Your task to perform on an android device: See recent photos Image 0: 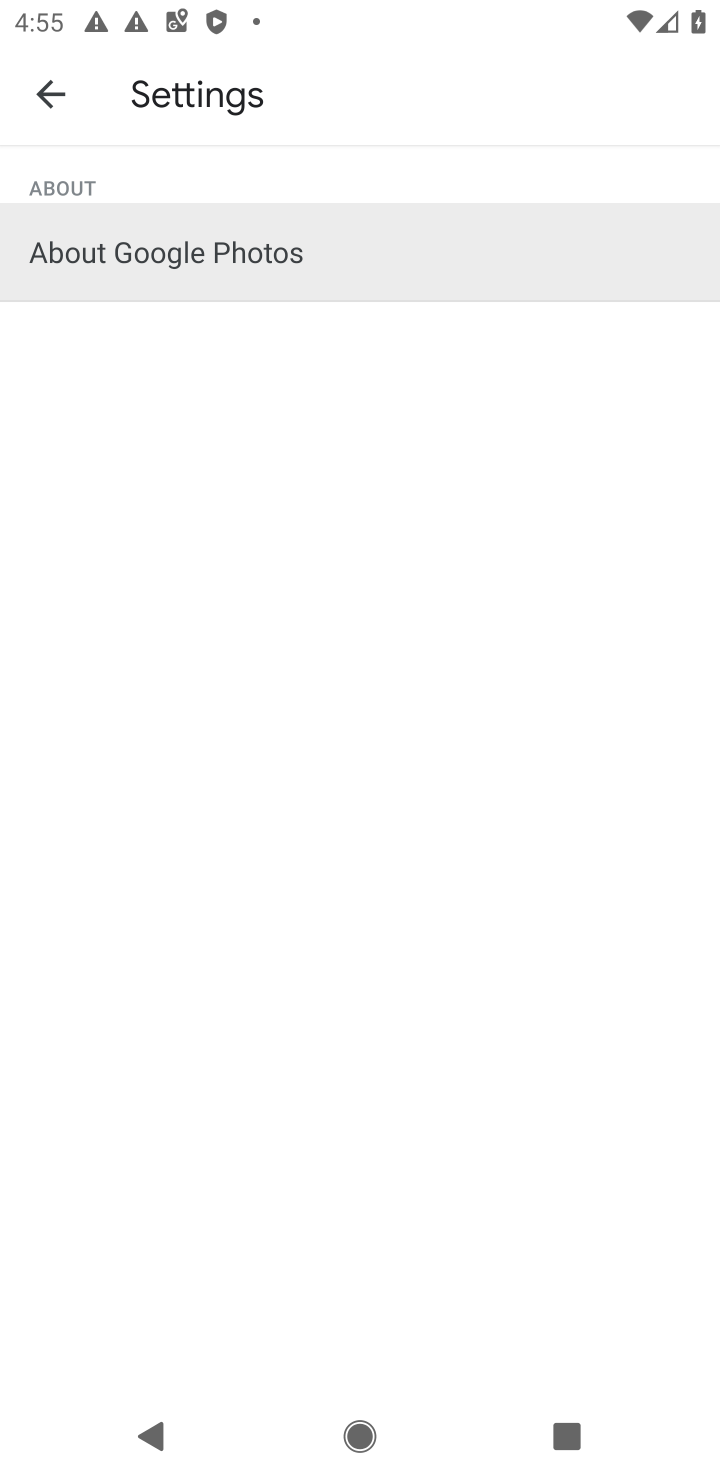
Step 0: press home button
Your task to perform on an android device: See recent photos Image 1: 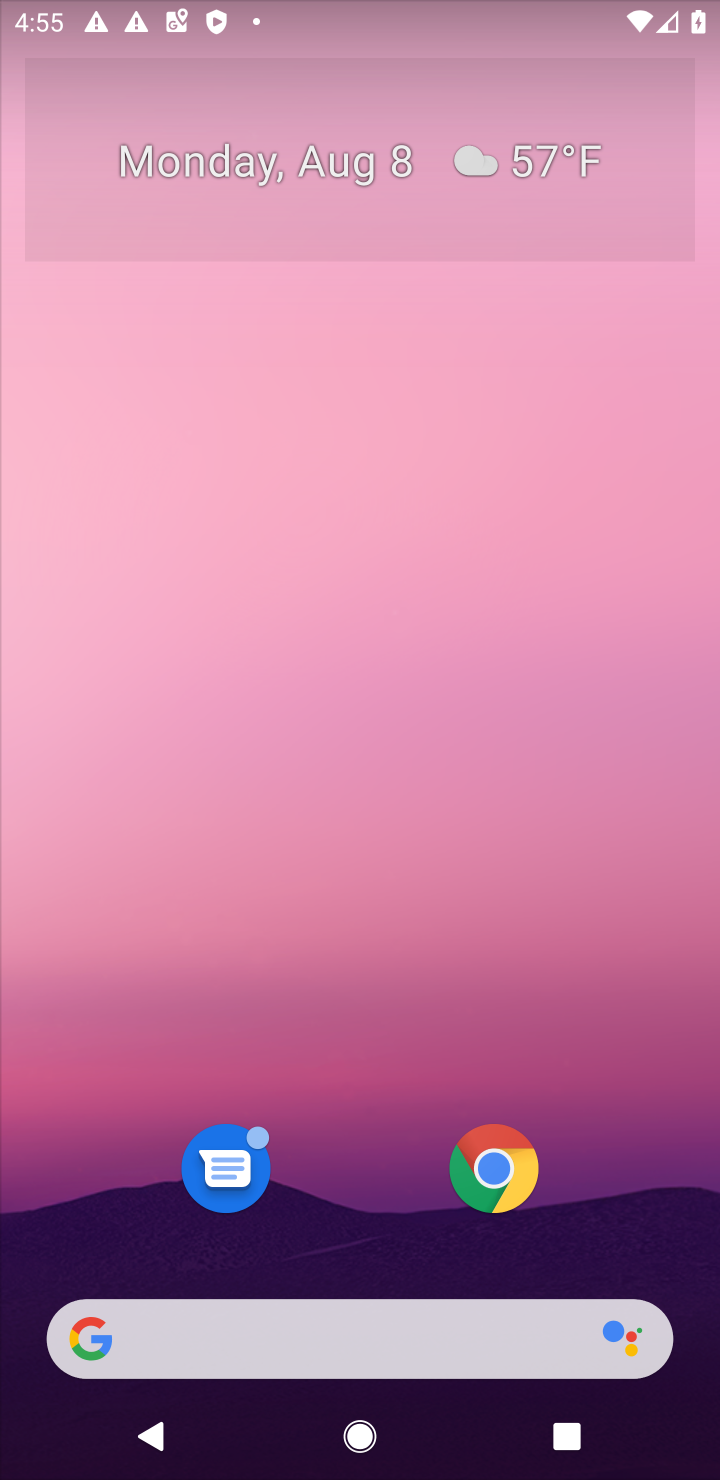
Step 1: drag from (344, 794) to (300, 149)
Your task to perform on an android device: See recent photos Image 2: 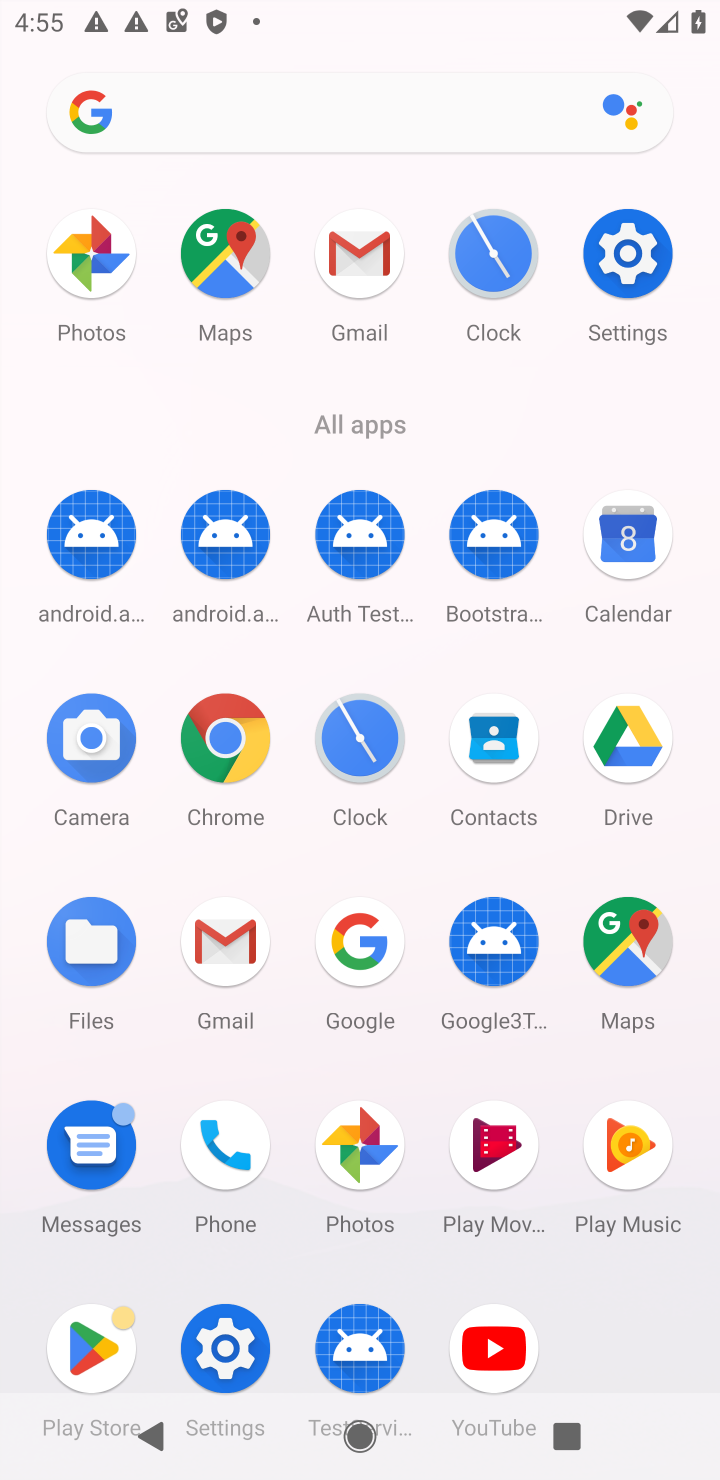
Step 2: click (369, 1180)
Your task to perform on an android device: See recent photos Image 3: 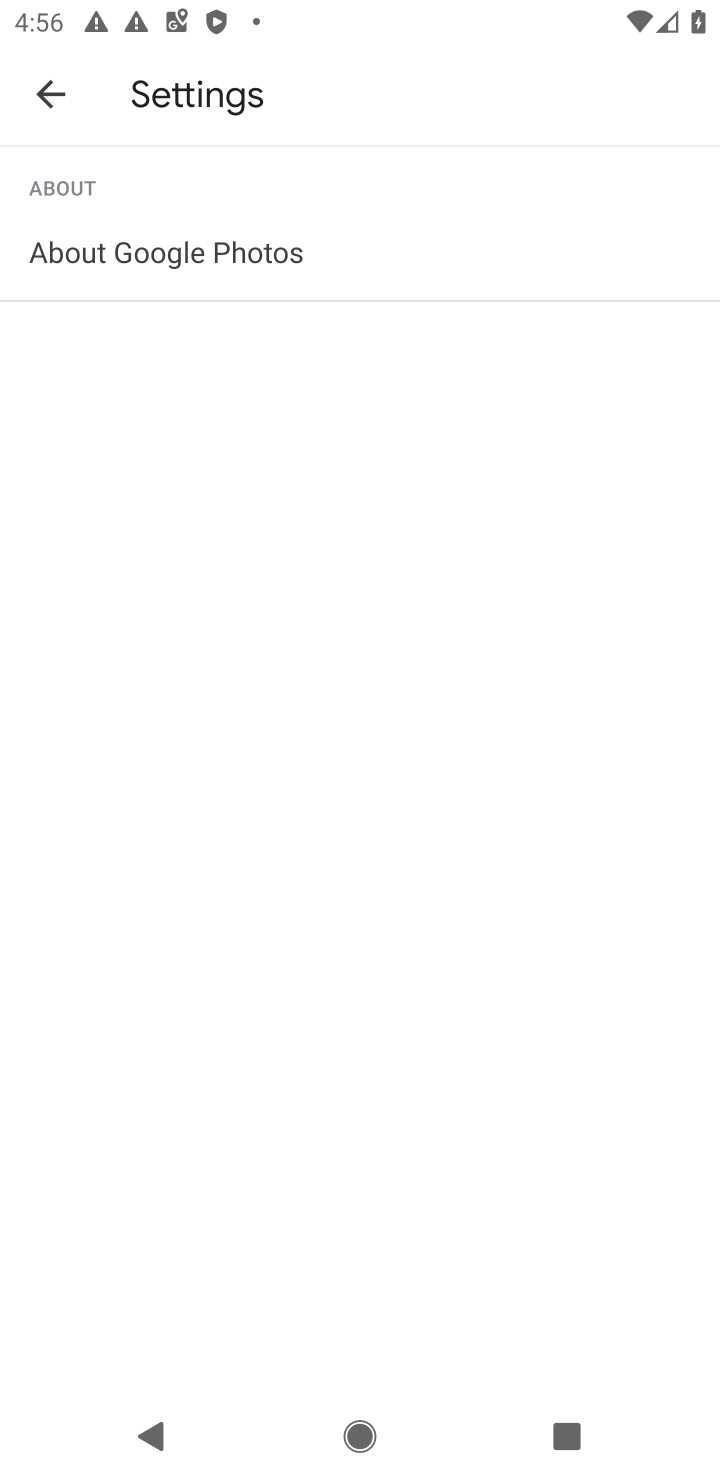
Step 3: click (51, 92)
Your task to perform on an android device: See recent photos Image 4: 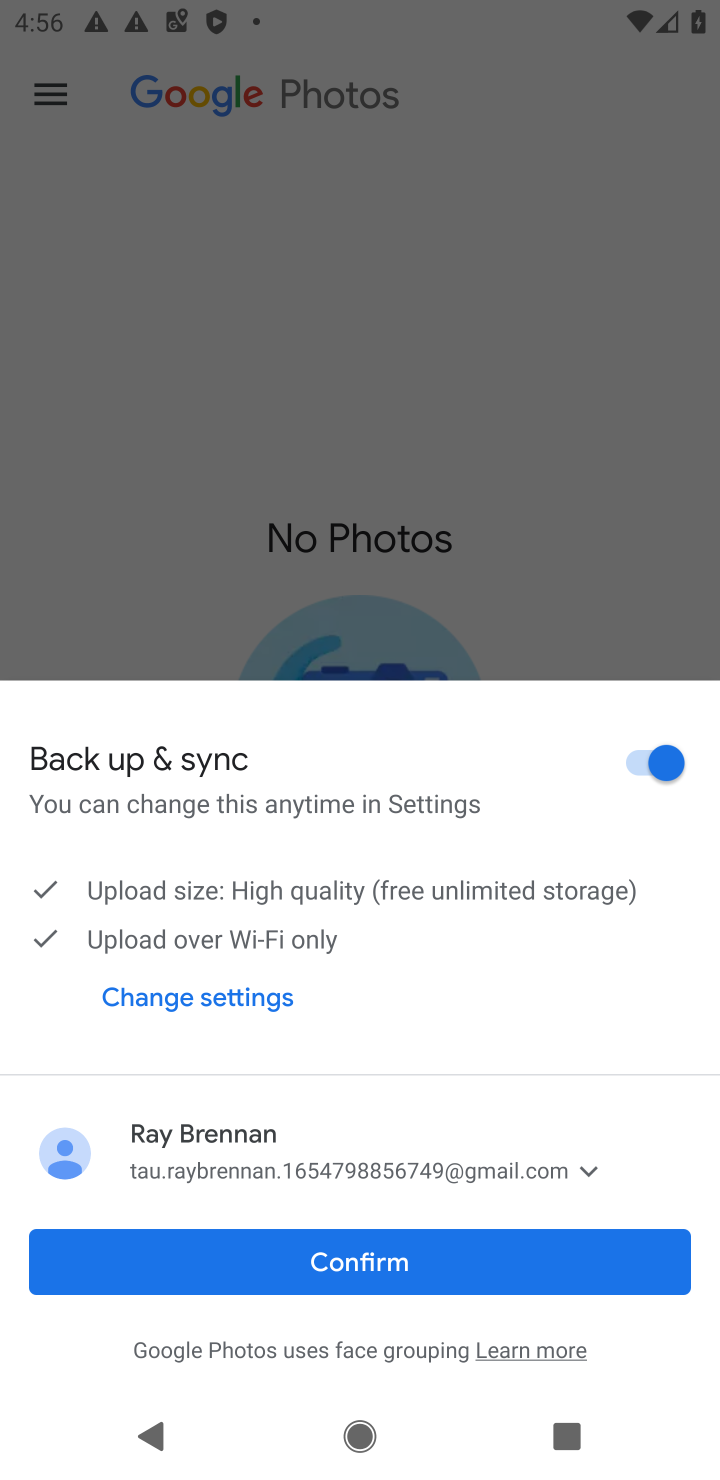
Step 4: click (298, 1300)
Your task to perform on an android device: See recent photos Image 5: 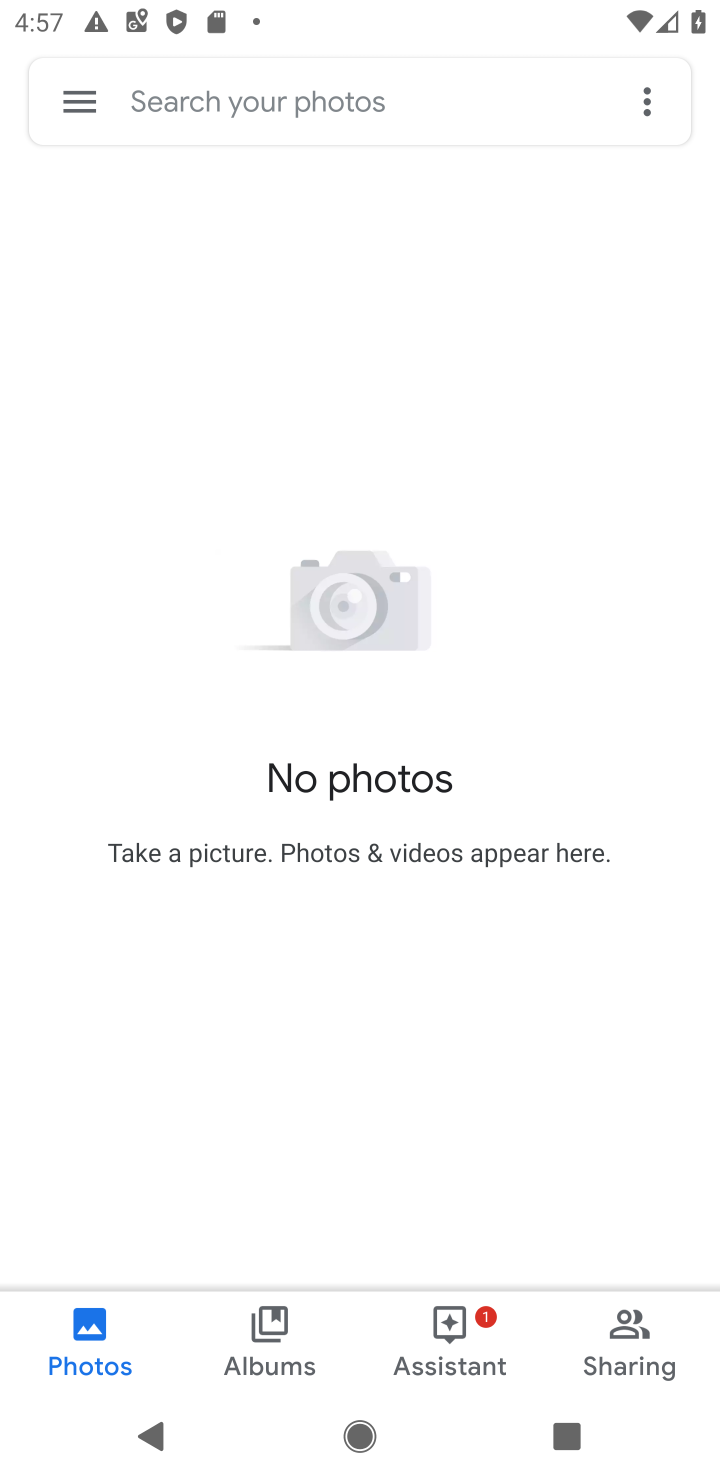
Step 5: click (249, 1330)
Your task to perform on an android device: See recent photos Image 6: 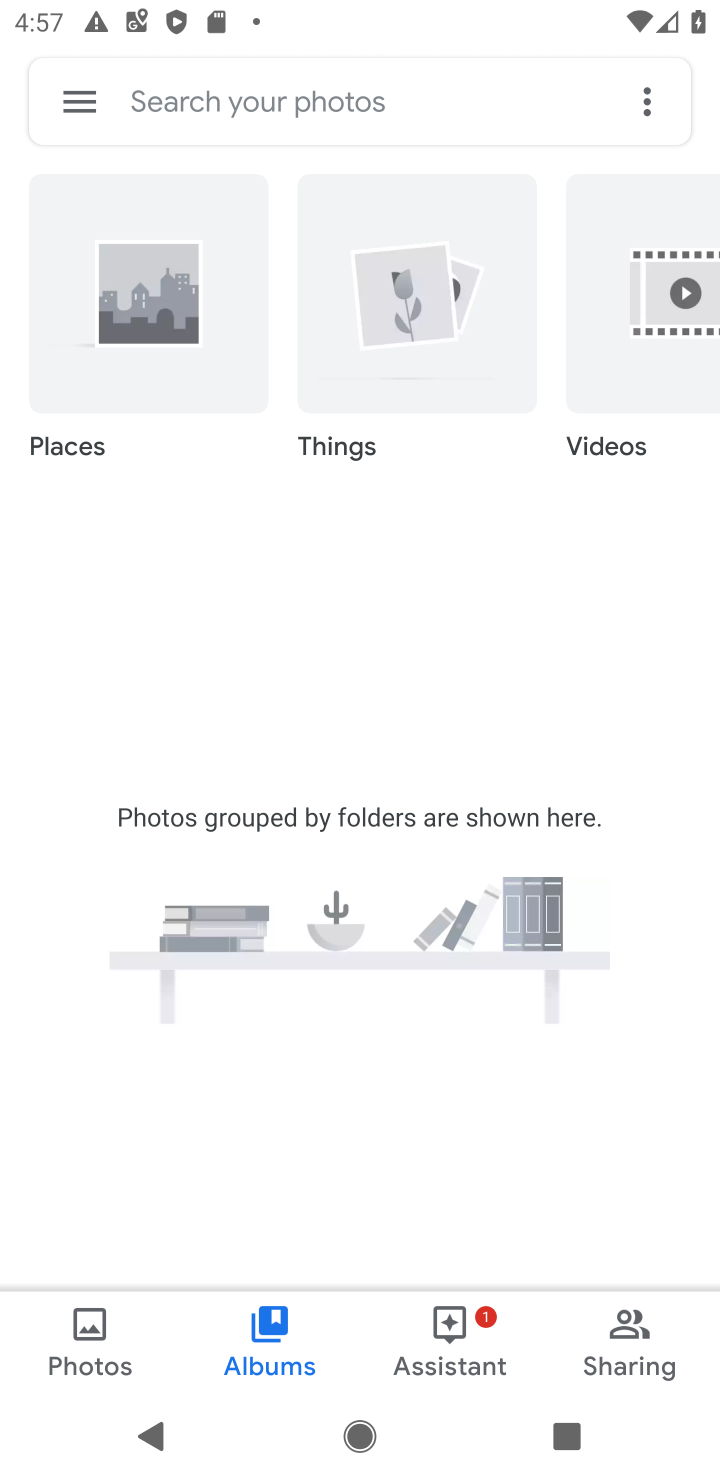
Step 6: task complete